Your task to perform on an android device: What is the news today? Image 0: 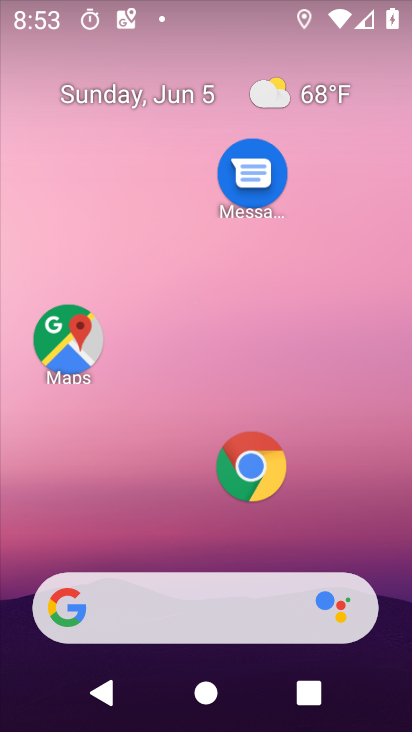
Step 0: drag from (188, 546) to (217, 49)
Your task to perform on an android device: What is the news today? Image 1: 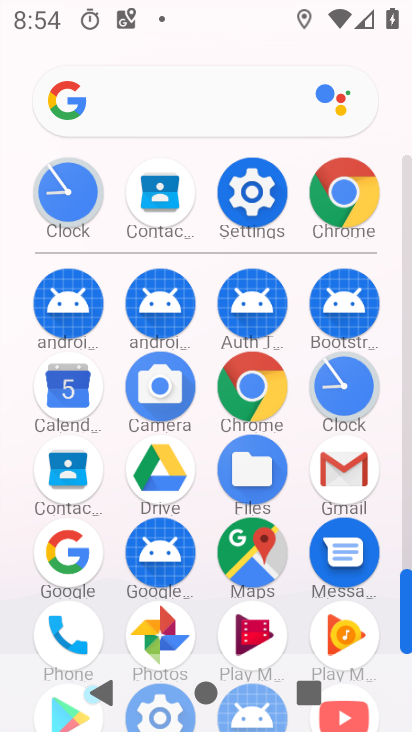
Step 1: click (174, 101)
Your task to perform on an android device: What is the news today? Image 2: 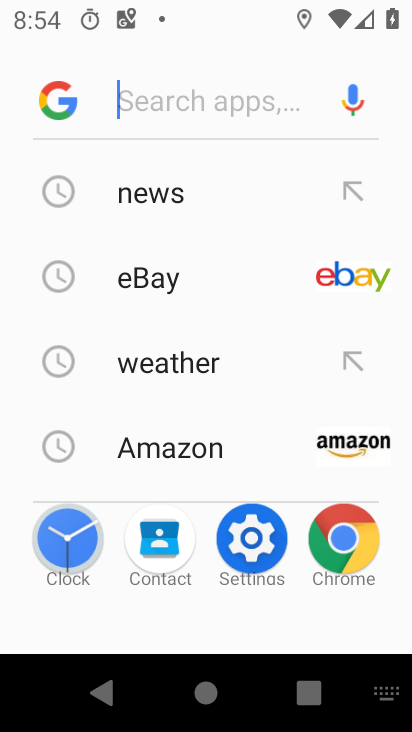
Step 2: type "news today"
Your task to perform on an android device: What is the news today? Image 3: 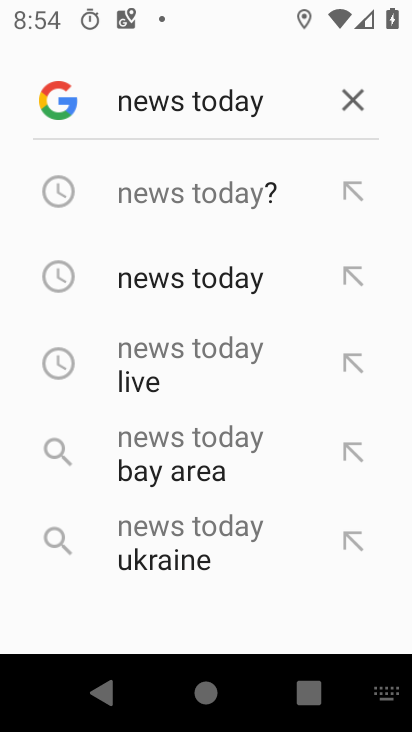
Step 3: click (207, 192)
Your task to perform on an android device: What is the news today? Image 4: 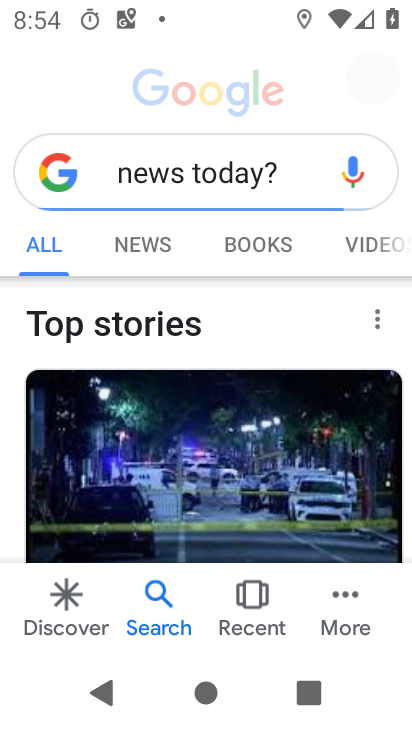
Step 4: task complete